Your task to perform on an android device: Set the phone to "Do not disturb". Image 0: 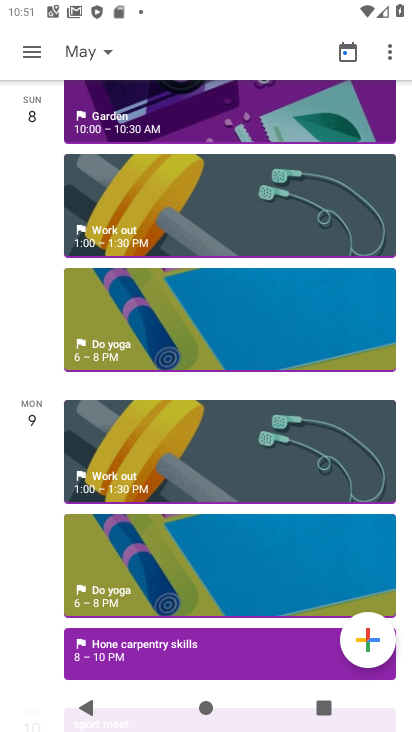
Step 0: press home button
Your task to perform on an android device: Set the phone to "Do not disturb". Image 1: 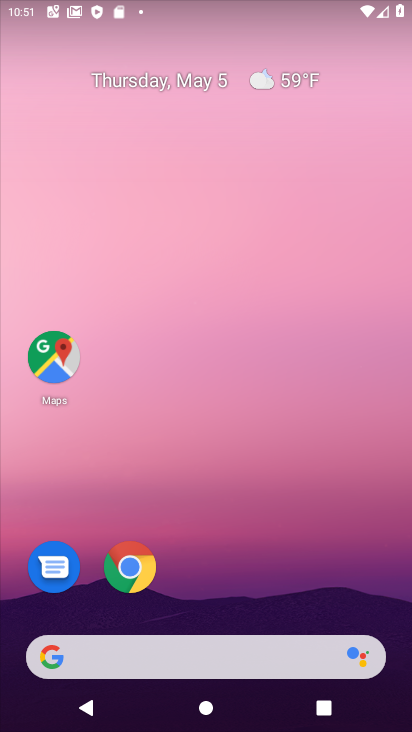
Step 1: drag from (218, 548) to (48, 113)
Your task to perform on an android device: Set the phone to "Do not disturb". Image 2: 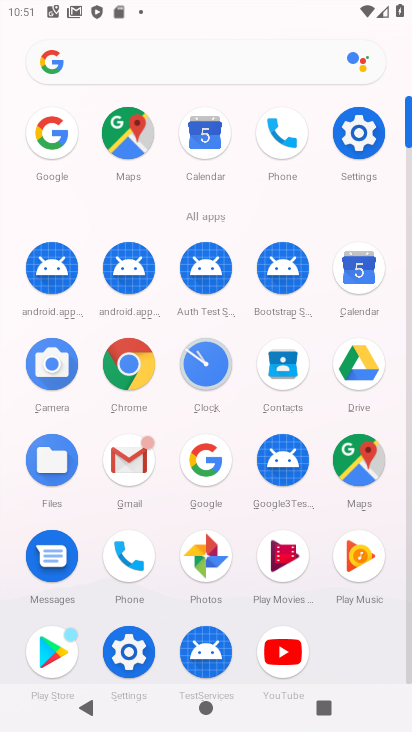
Step 2: click (359, 127)
Your task to perform on an android device: Set the phone to "Do not disturb". Image 3: 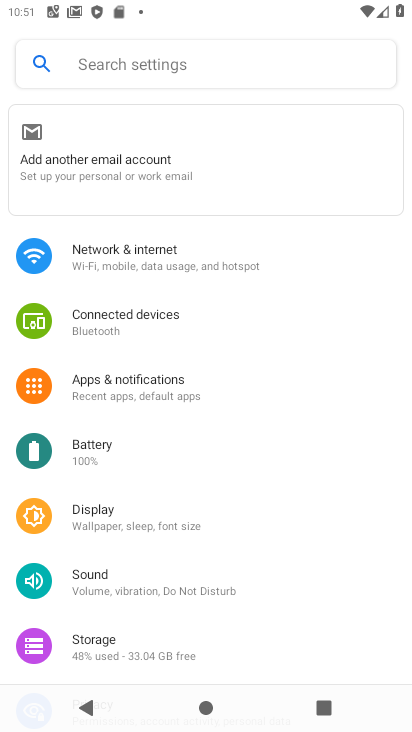
Step 3: click (128, 586)
Your task to perform on an android device: Set the phone to "Do not disturb". Image 4: 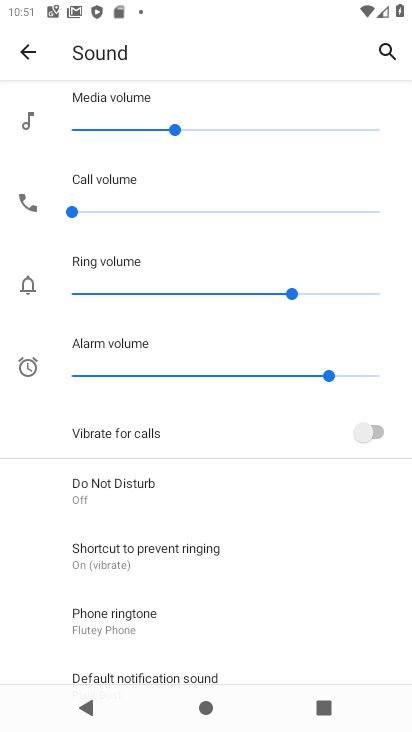
Step 4: drag from (199, 634) to (200, 338)
Your task to perform on an android device: Set the phone to "Do not disturb". Image 5: 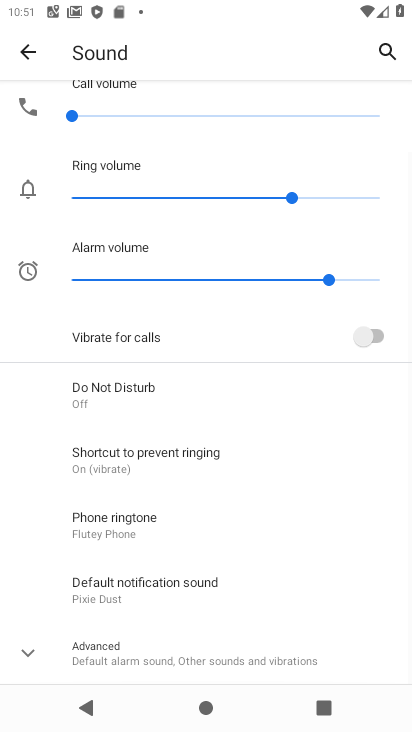
Step 5: click (108, 393)
Your task to perform on an android device: Set the phone to "Do not disturb". Image 6: 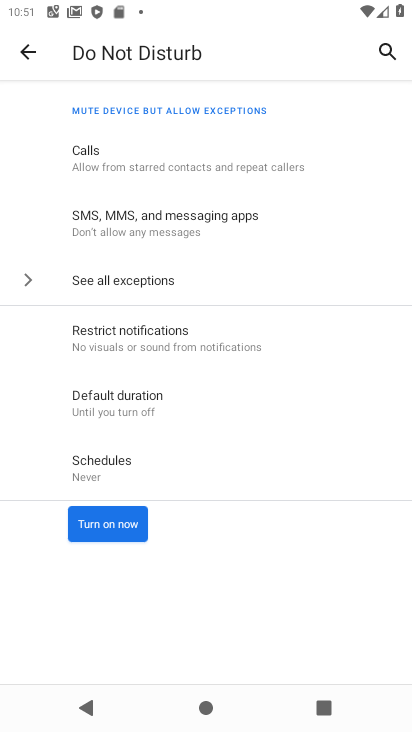
Step 6: click (111, 526)
Your task to perform on an android device: Set the phone to "Do not disturb". Image 7: 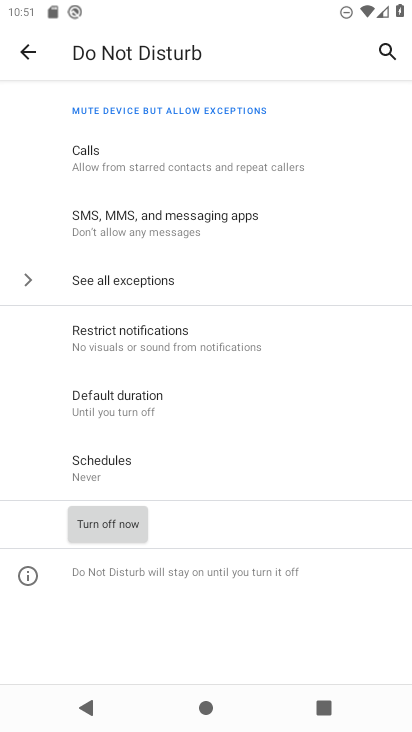
Step 7: task complete